Your task to perform on an android device: Open Google Maps and go to "Timeline" Image 0: 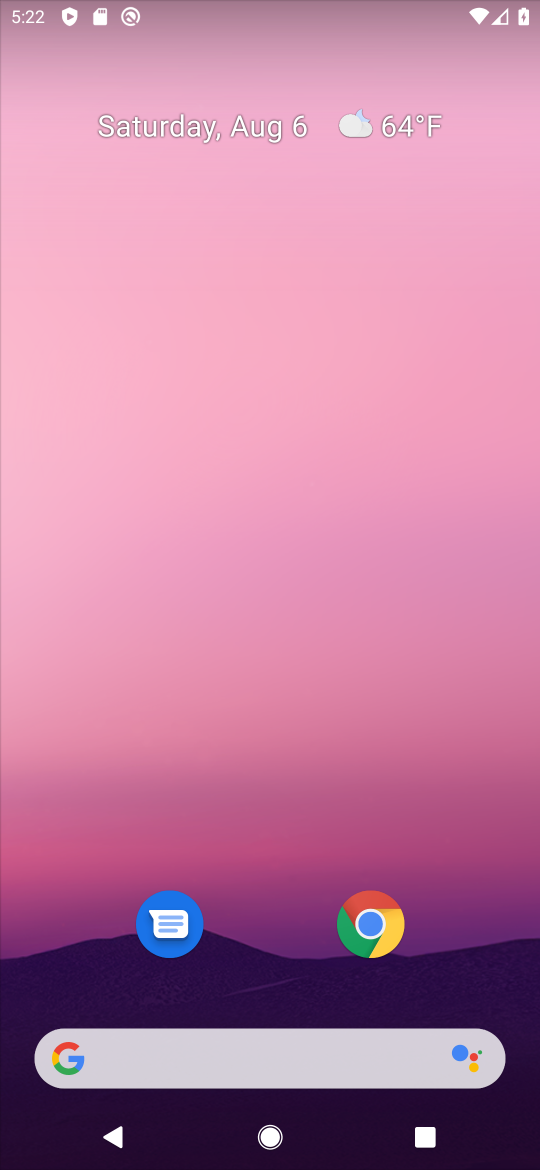
Step 0: press home button
Your task to perform on an android device: Open Google Maps and go to "Timeline" Image 1: 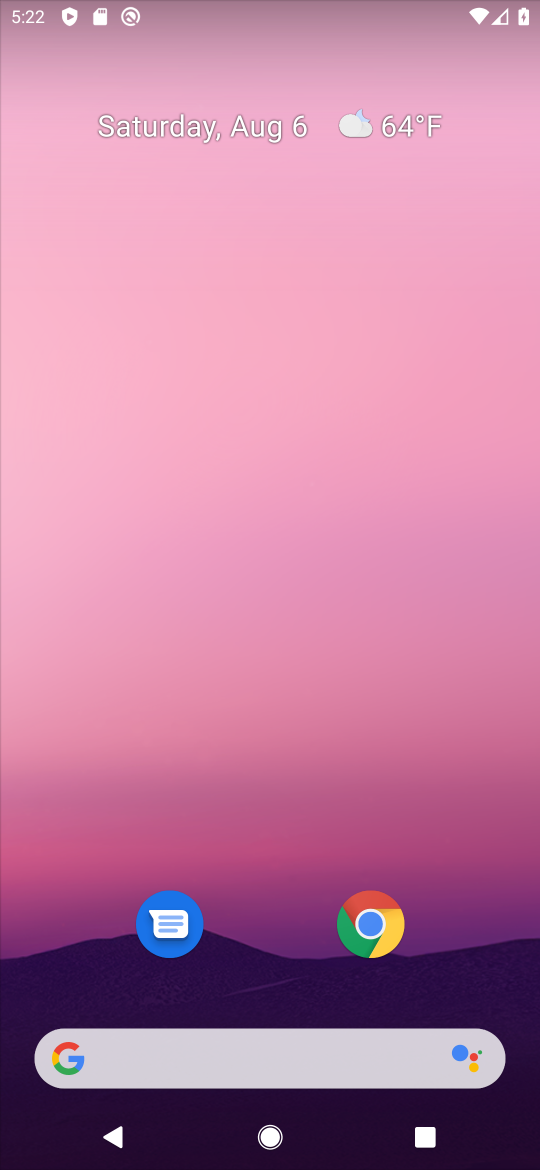
Step 1: drag from (264, 831) to (250, 112)
Your task to perform on an android device: Open Google Maps and go to "Timeline" Image 2: 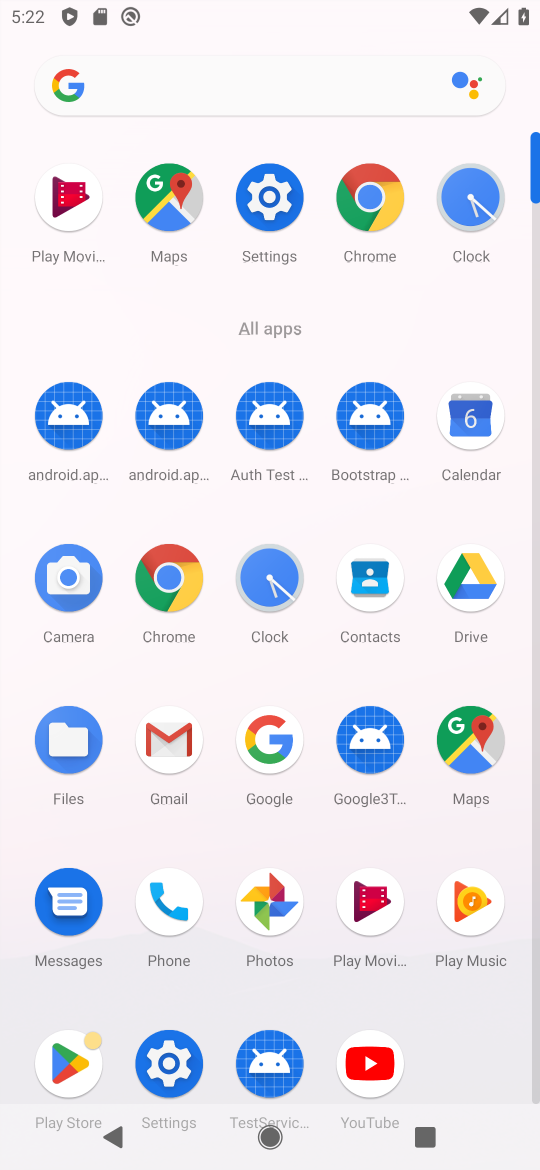
Step 2: click (463, 733)
Your task to perform on an android device: Open Google Maps and go to "Timeline" Image 3: 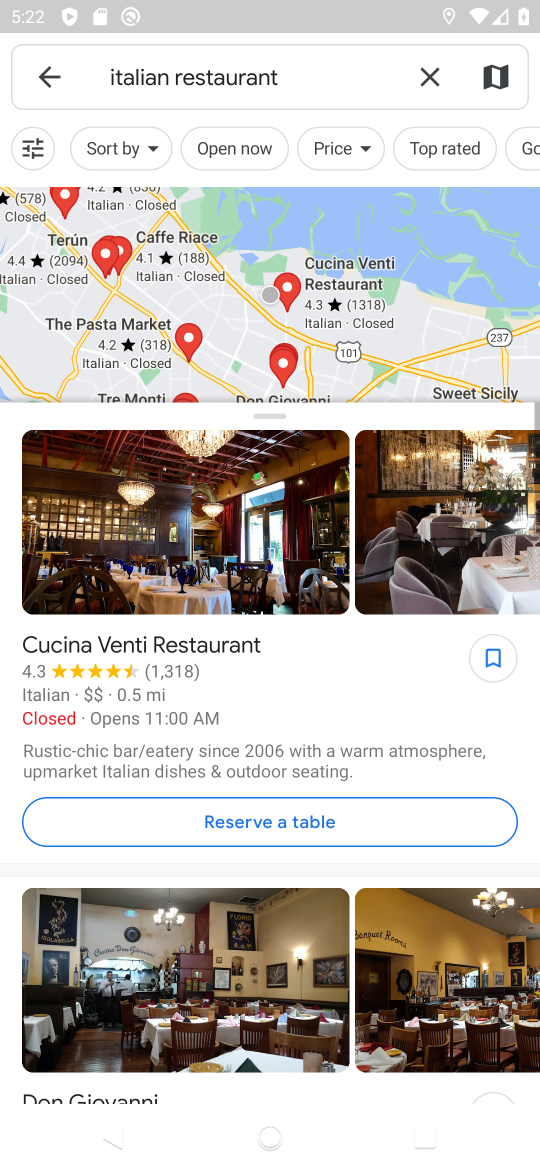
Step 3: click (39, 70)
Your task to perform on an android device: Open Google Maps and go to "Timeline" Image 4: 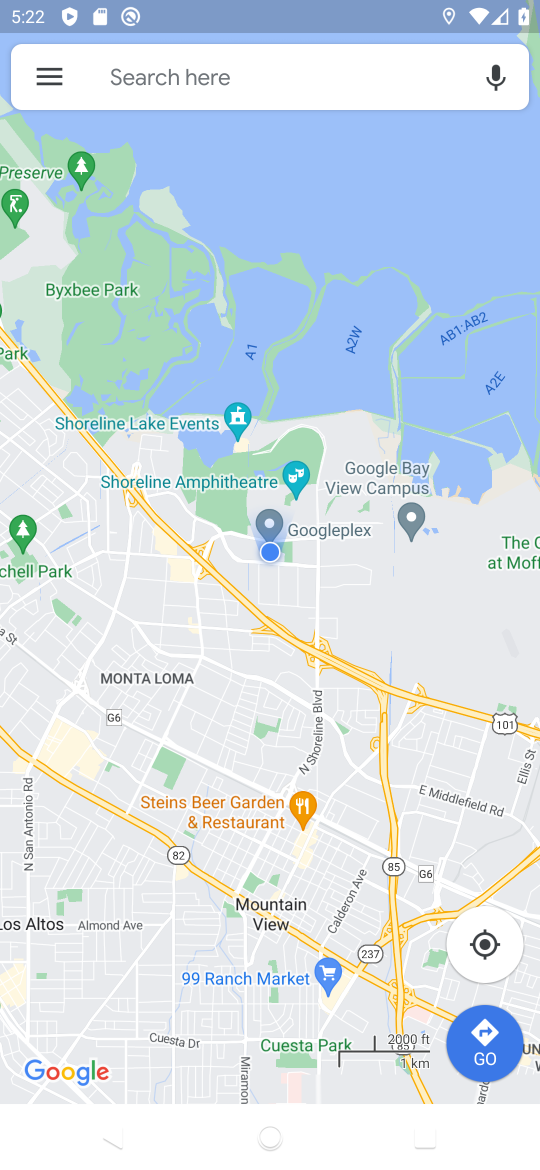
Step 4: click (45, 69)
Your task to perform on an android device: Open Google Maps and go to "Timeline" Image 5: 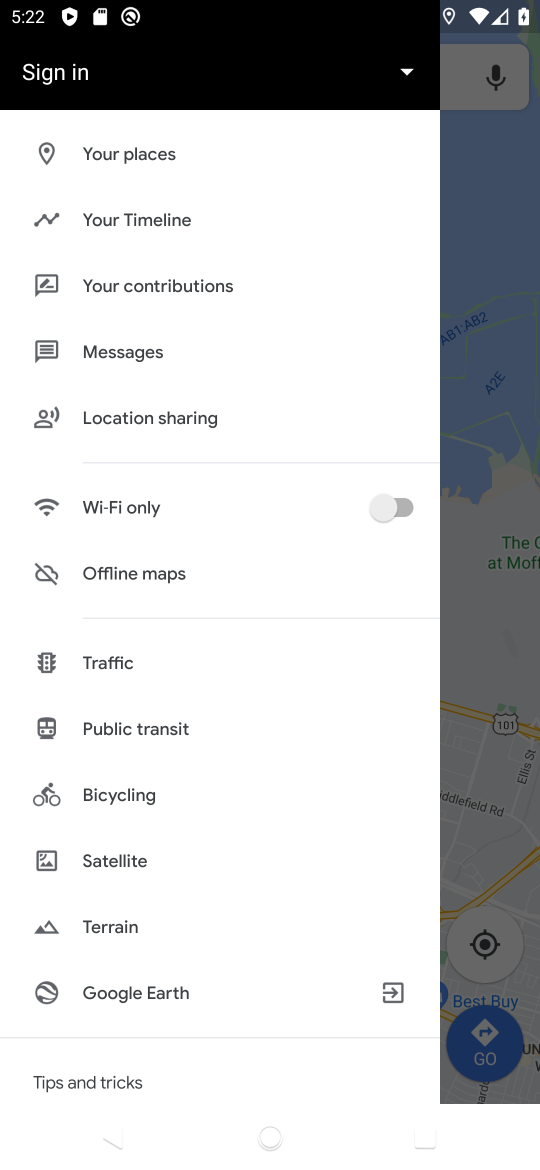
Step 5: click (133, 216)
Your task to perform on an android device: Open Google Maps and go to "Timeline" Image 6: 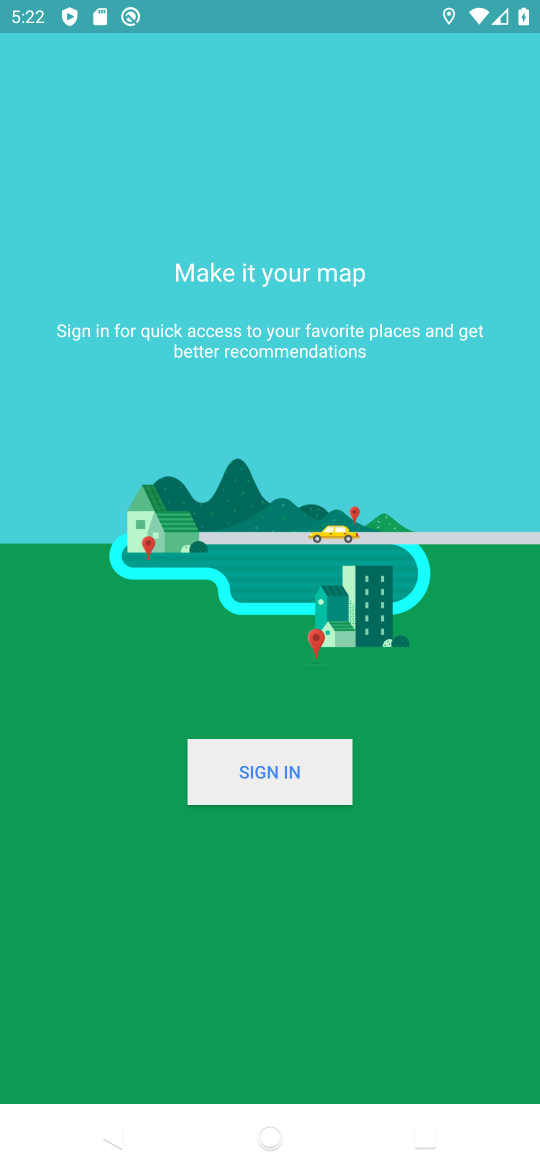
Step 6: task complete